Your task to perform on an android device: all mails in gmail Image 0: 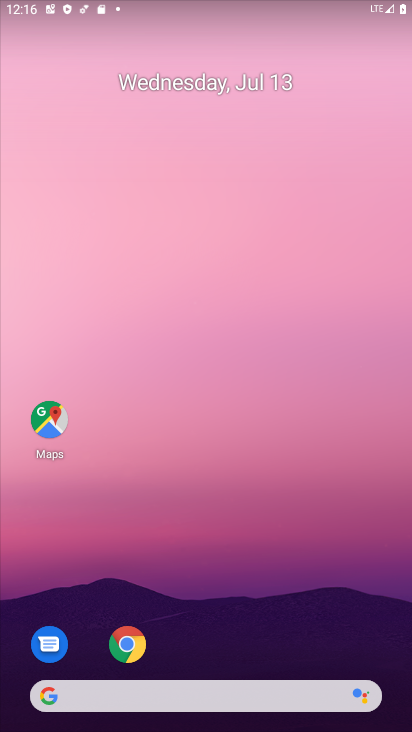
Step 0: drag from (230, 649) to (241, 111)
Your task to perform on an android device: all mails in gmail Image 1: 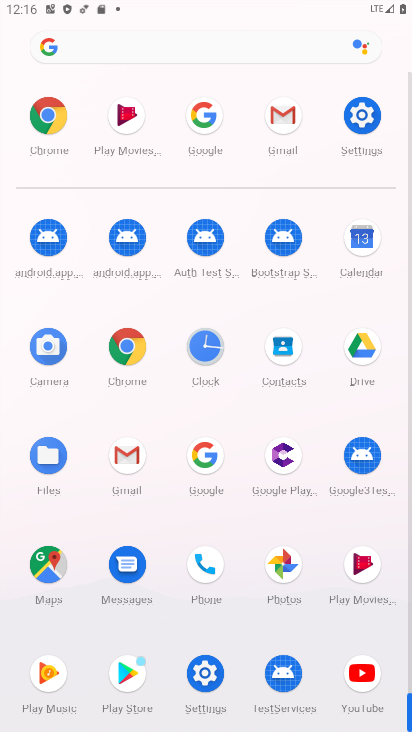
Step 1: click (284, 122)
Your task to perform on an android device: all mails in gmail Image 2: 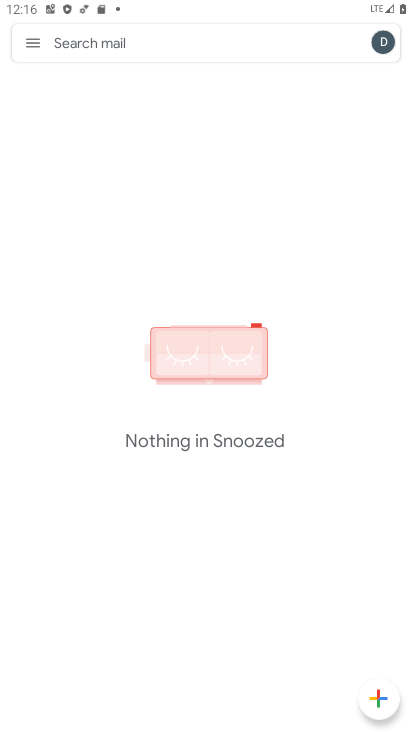
Step 2: click (32, 43)
Your task to perform on an android device: all mails in gmail Image 3: 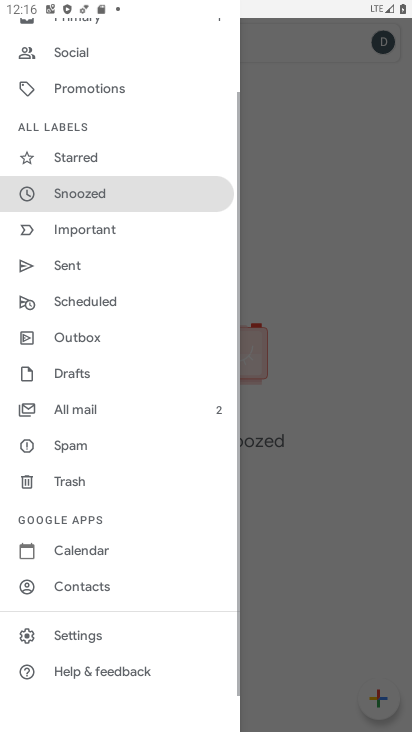
Step 3: click (78, 413)
Your task to perform on an android device: all mails in gmail Image 4: 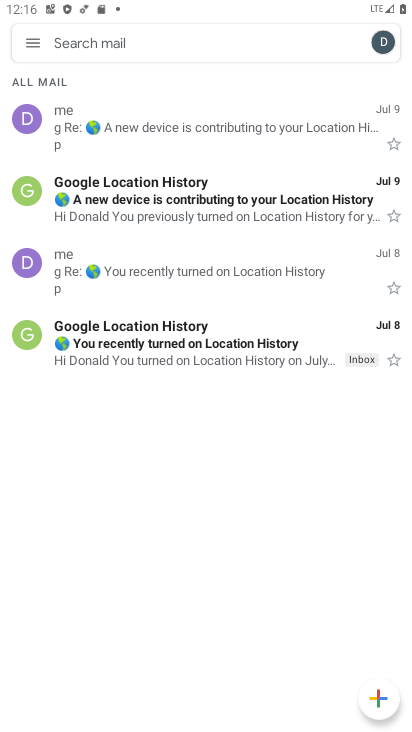
Step 4: task complete